Your task to perform on an android device: Go to Android settings Image 0: 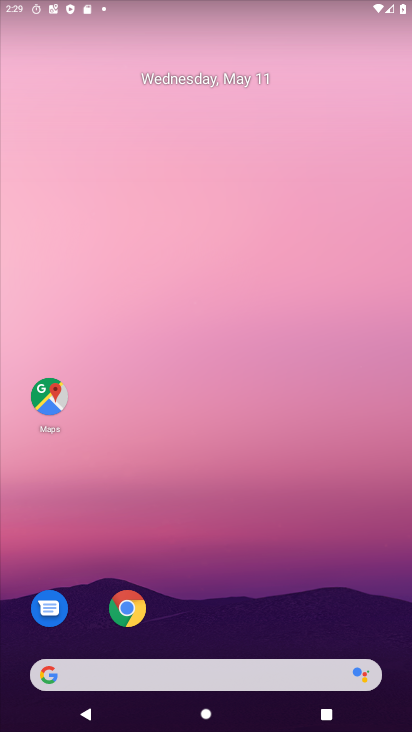
Step 0: drag from (230, 583) to (240, 364)
Your task to perform on an android device: Go to Android settings Image 1: 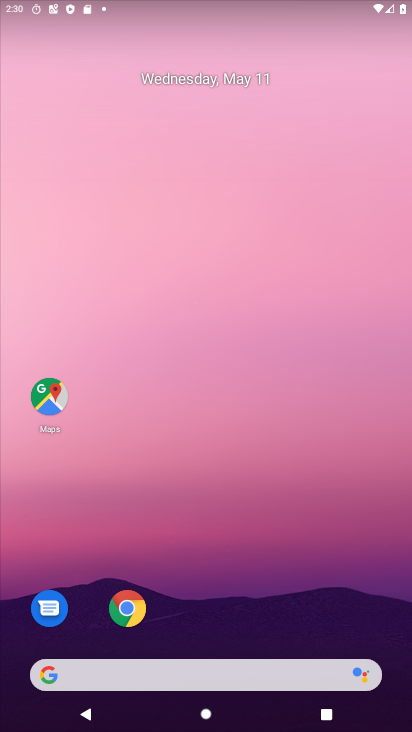
Step 1: drag from (254, 510) to (273, 130)
Your task to perform on an android device: Go to Android settings Image 2: 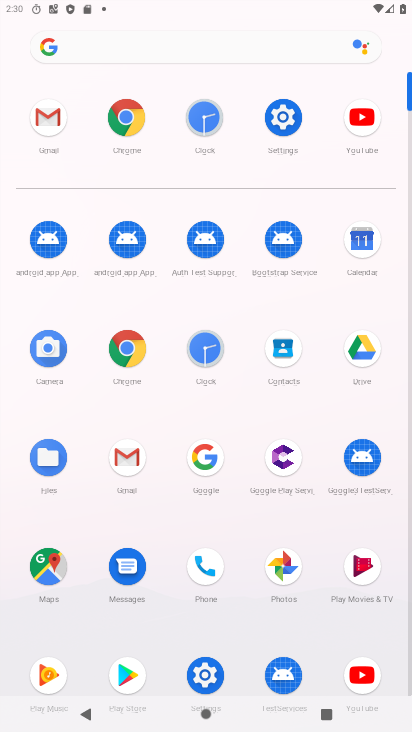
Step 2: click (288, 121)
Your task to perform on an android device: Go to Android settings Image 3: 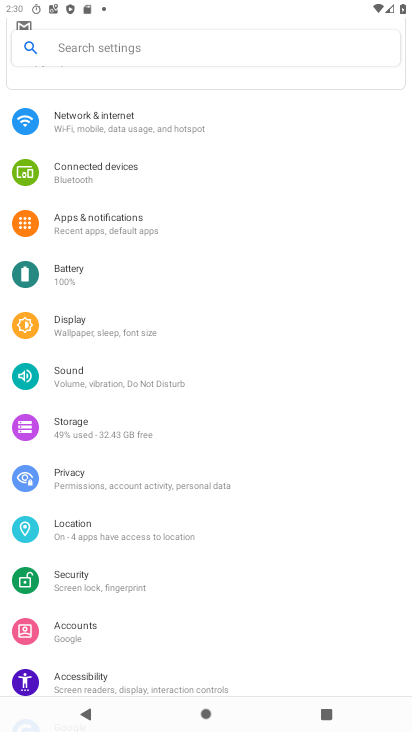
Step 3: drag from (290, 656) to (282, 319)
Your task to perform on an android device: Go to Android settings Image 4: 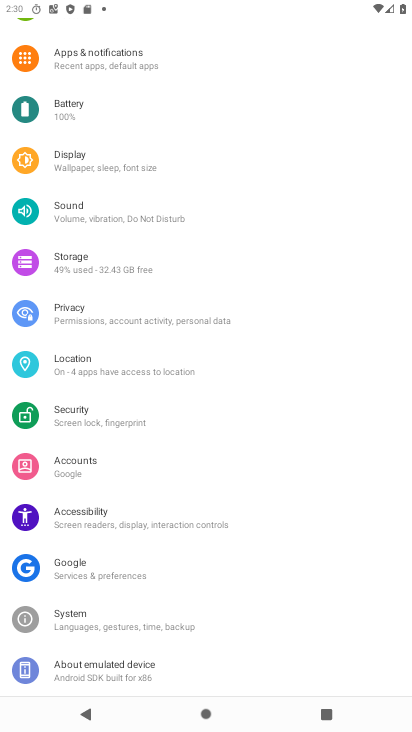
Step 4: click (86, 661)
Your task to perform on an android device: Go to Android settings Image 5: 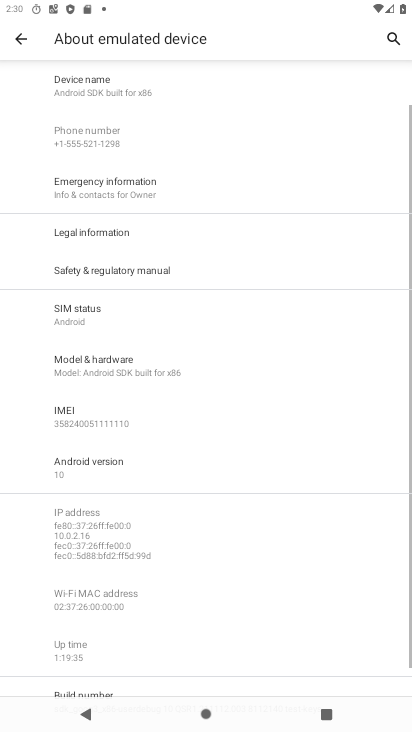
Step 5: click (98, 466)
Your task to perform on an android device: Go to Android settings Image 6: 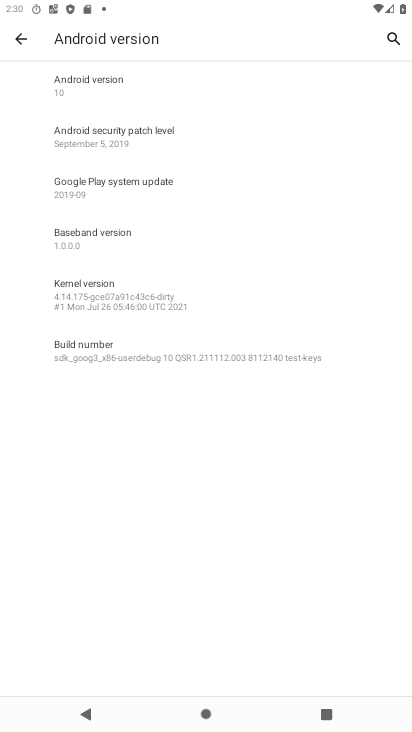
Step 6: task complete